Your task to perform on an android device: Open battery settings Image 0: 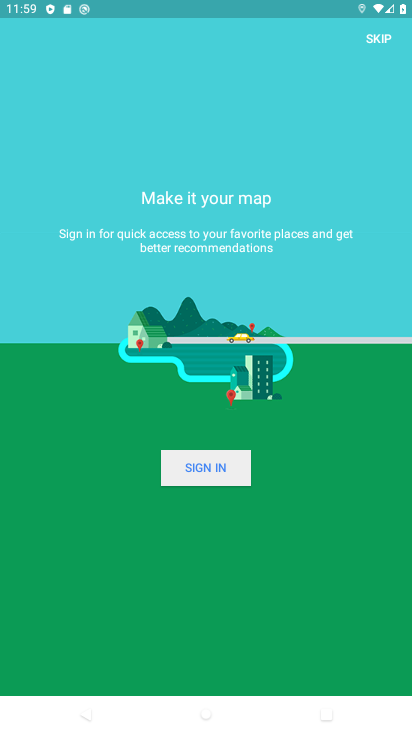
Step 0: press home button
Your task to perform on an android device: Open battery settings Image 1: 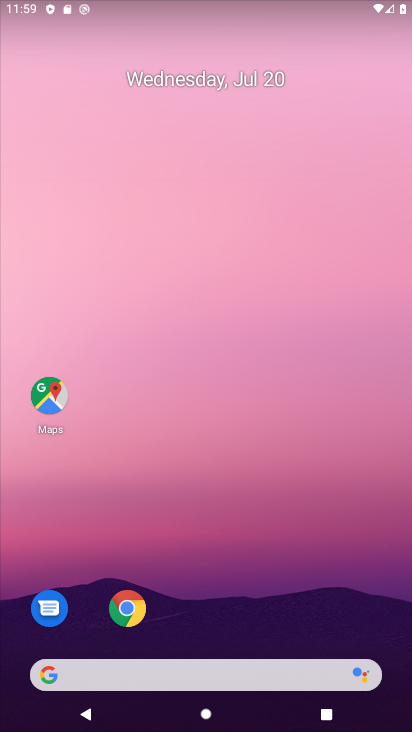
Step 1: drag from (188, 601) to (218, 263)
Your task to perform on an android device: Open battery settings Image 2: 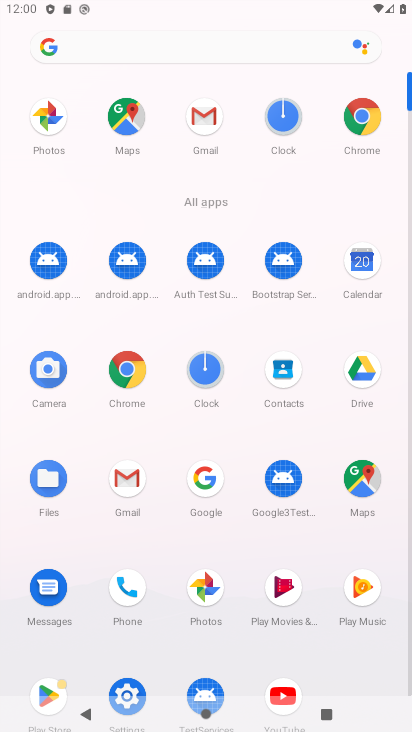
Step 2: click (130, 683)
Your task to perform on an android device: Open battery settings Image 3: 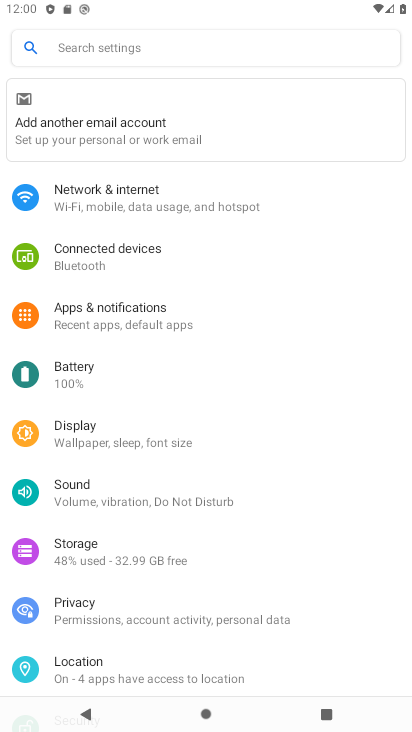
Step 3: click (92, 378)
Your task to perform on an android device: Open battery settings Image 4: 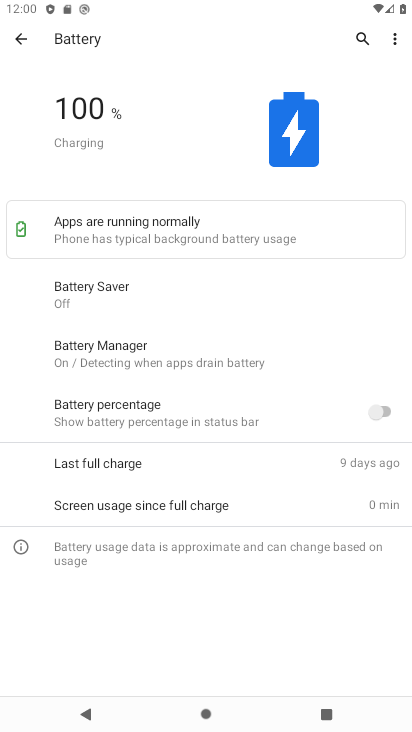
Step 4: task complete